Your task to perform on an android device: Open notification settings Image 0: 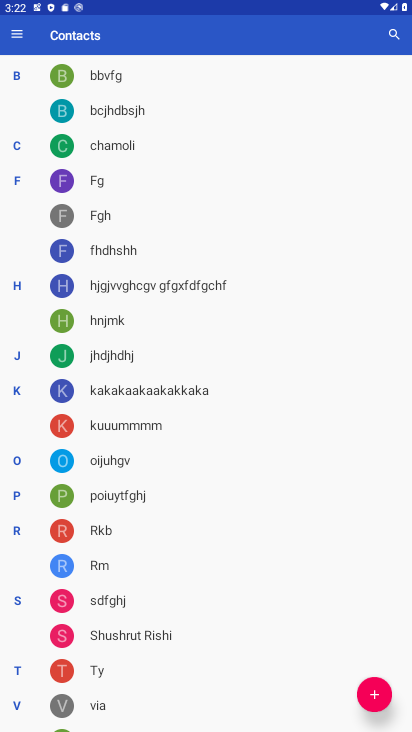
Step 0: press home button
Your task to perform on an android device: Open notification settings Image 1: 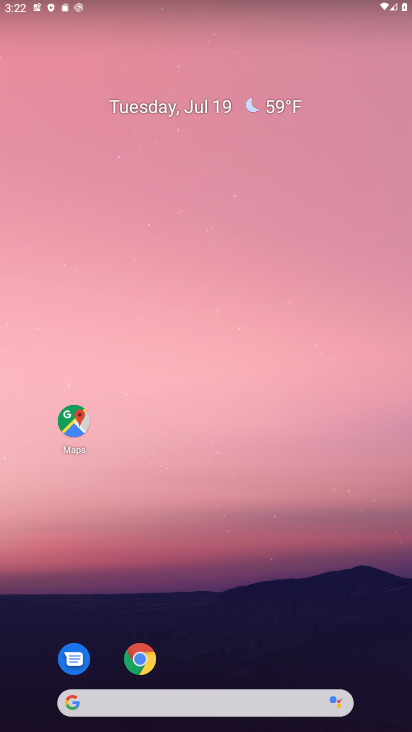
Step 1: drag from (182, 709) to (240, 140)
Your task to perform on an android device: Open notification settings Image 2: 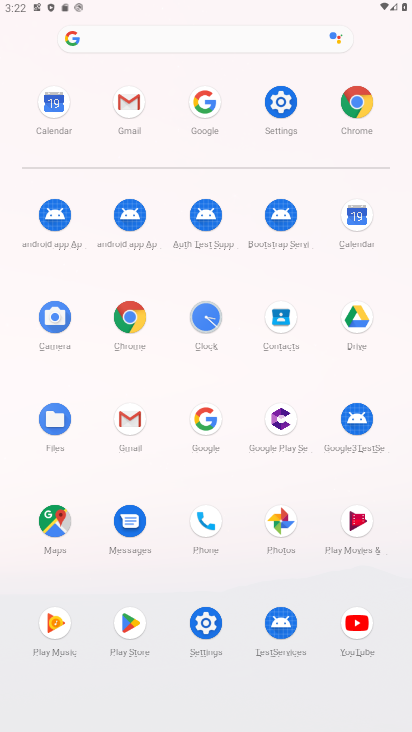
Step 2: click (282, 103)
Your task to perform on an android device: Open notification settings Image 3: 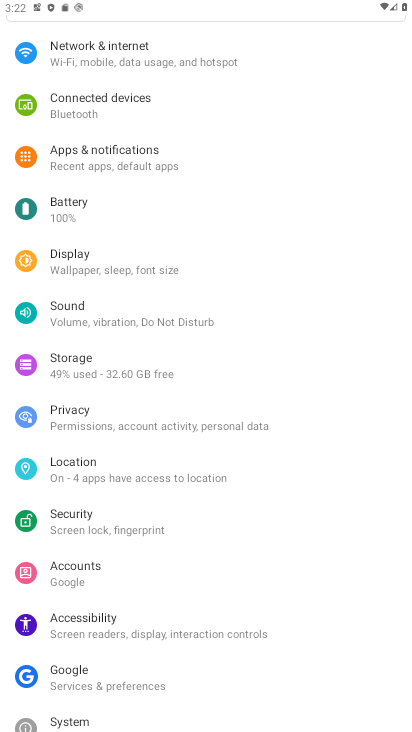
Step 3: click (106, 163)
Your task to perform on an android device: Open notification settings Image 4: 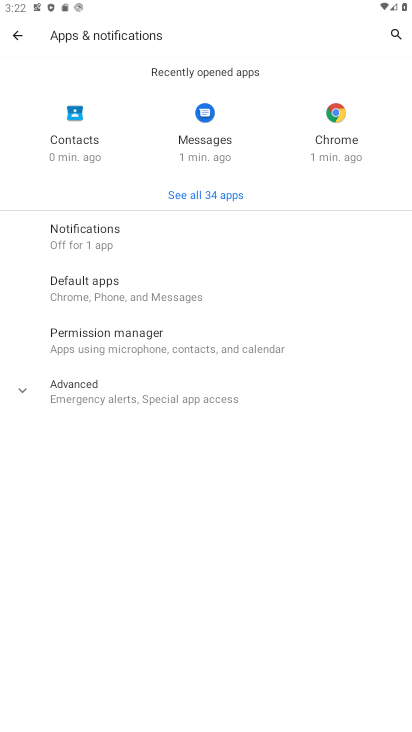
Step 4: click (87, 234)
Your task to perform on an android device: Open notification settings Image 5: 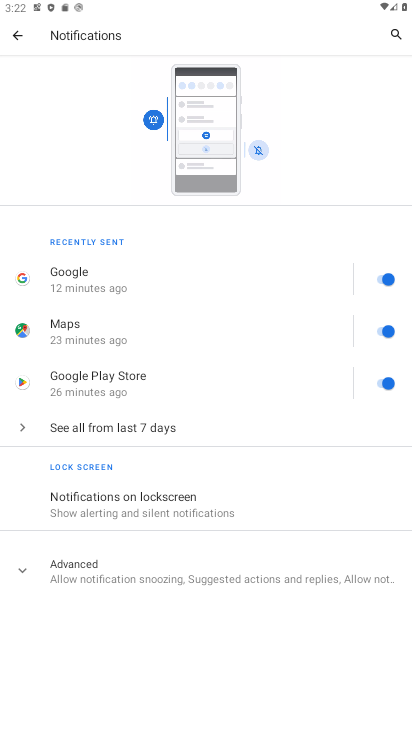
Step 5: task complete